Your task to perform on an android device: Empty the shopping cart on target. Image 0: 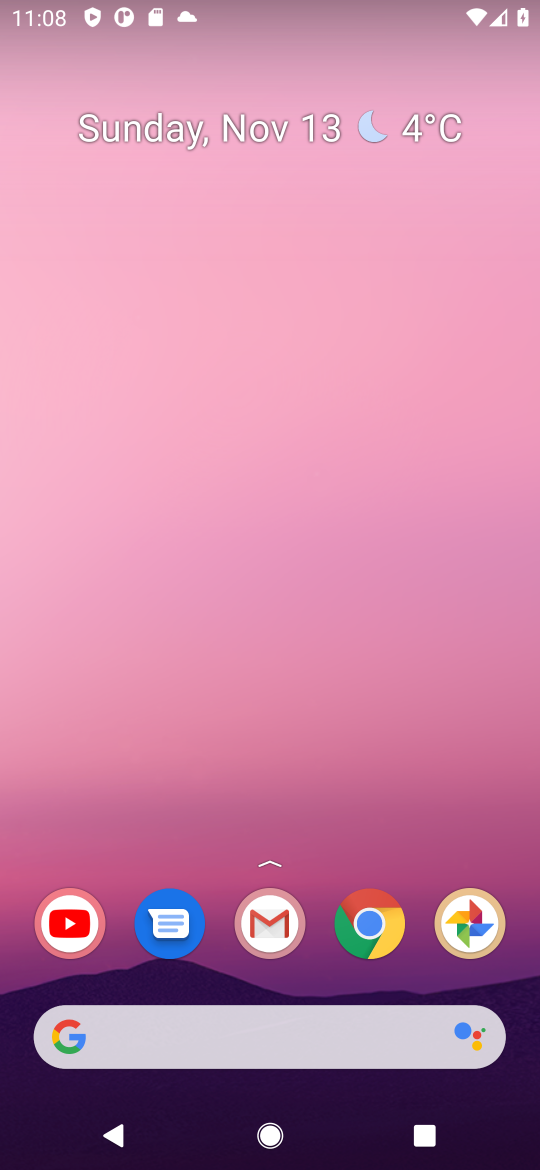
Step 0: click (376, 911)
Your task to perform on an android device: Empty the shopping cart on target. Image 1: 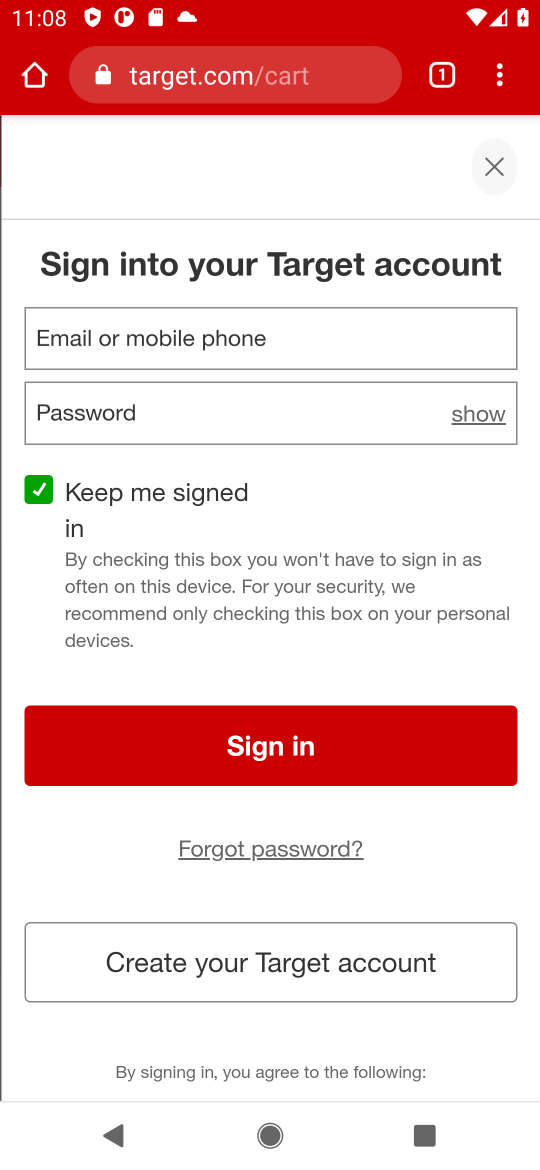
Step 1: click (192, 69)
Your task to perform on an android device: Empty the shopping cart on target. Image 2: 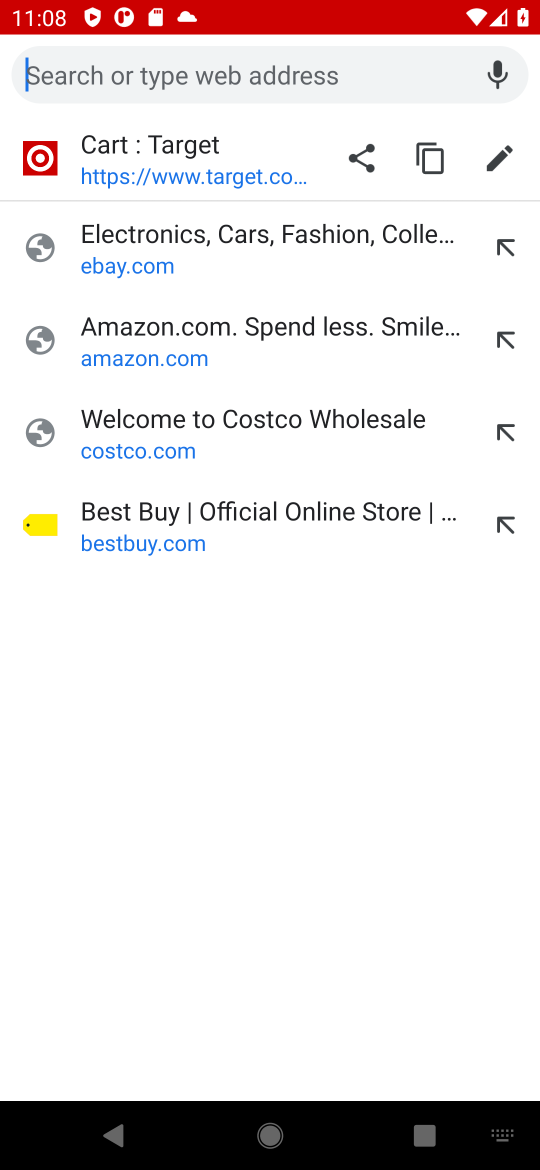
Step 2: type "target"
Your task to perform on an android device: Empty the shopping cart on target. Image 3: 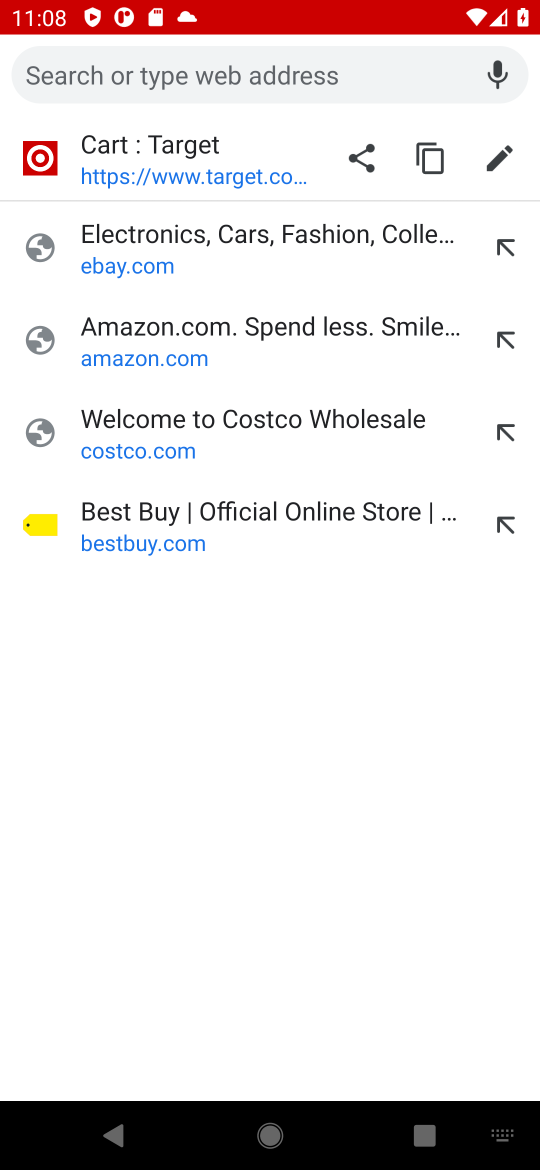
Step 3: click (175, 154)
Your task to perform on an android device: Empty the shopping cart on target. Image 4: 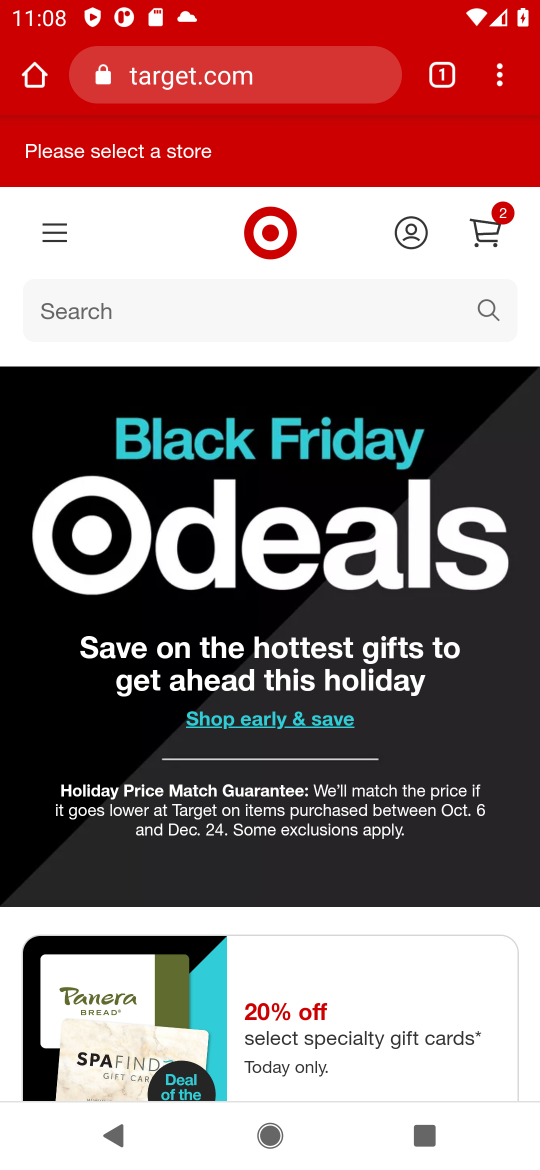
Step 4: click (493, 232)
Your task to perform on an android device: Empty the shopping cart on target. Image 5: 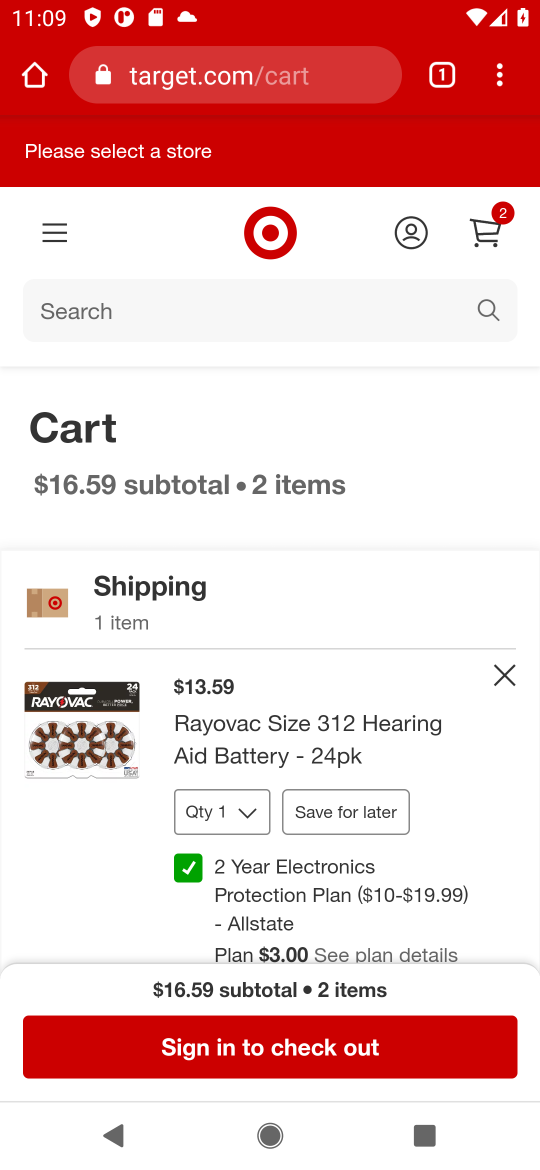
Step 5: task complete